Your task to perform on an android device: Open settings Image 0: 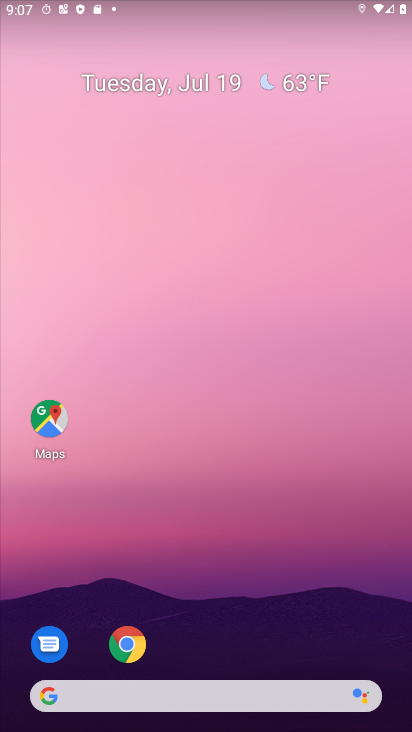
Step 0: press home button
Your task to perform on an android device: Open settings Image 1: 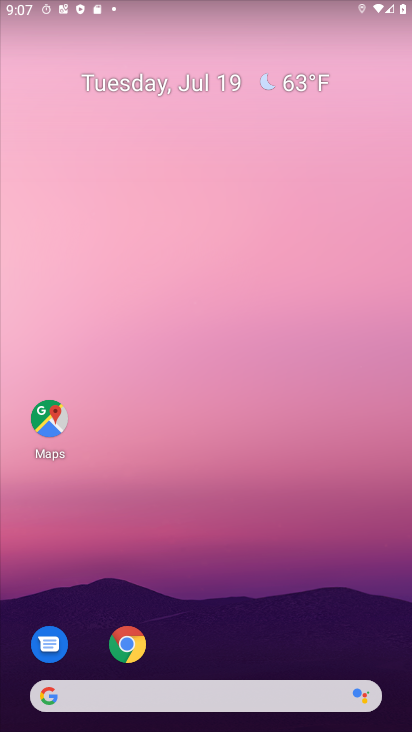
Step 1: drag from (220, 607) to (191, 231)
Your task to perform on an android device: Open settings Image 2: 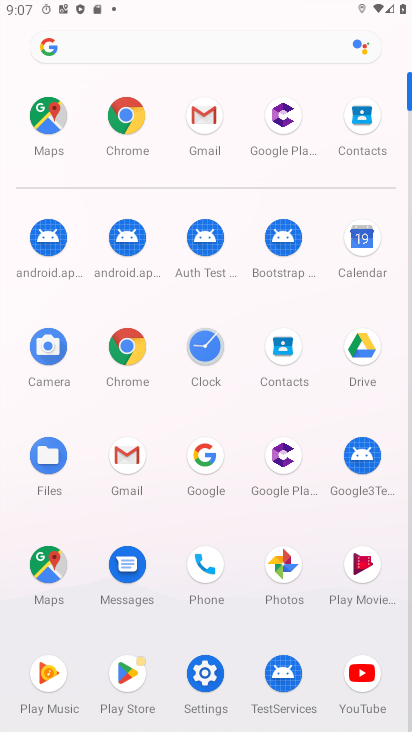
Step 2: click (219, 667)
Your task to perform on an android device: Open settings Image 3: 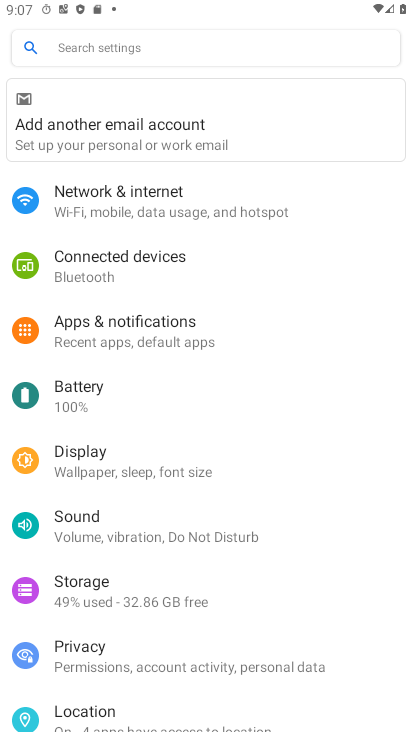
Step 3: task complete